Your task to perform on an android device: Open privacy settings Image 0: 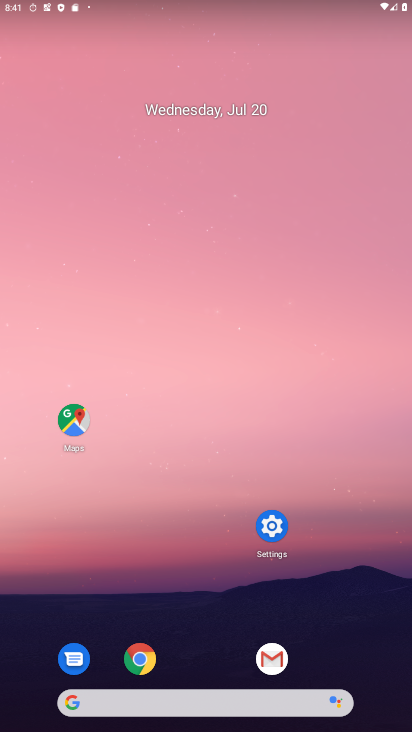
Step 0: click (275, 513)
Your task to perform on an android device: Open privacy settings Image 1: 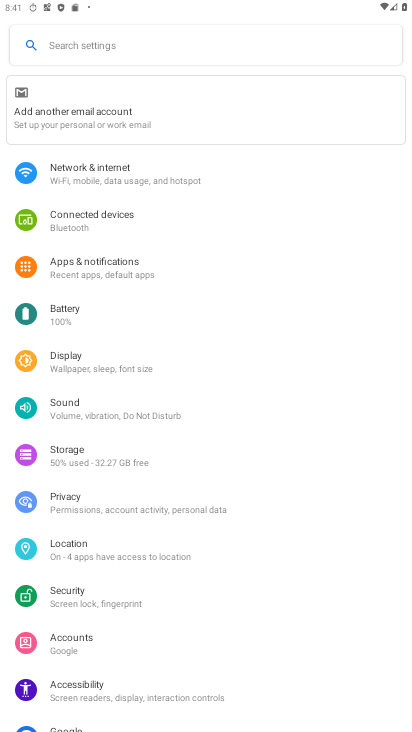
Step 1: click (133, 489)
Your task to perform on an android device: Open privacy settings Image 2: 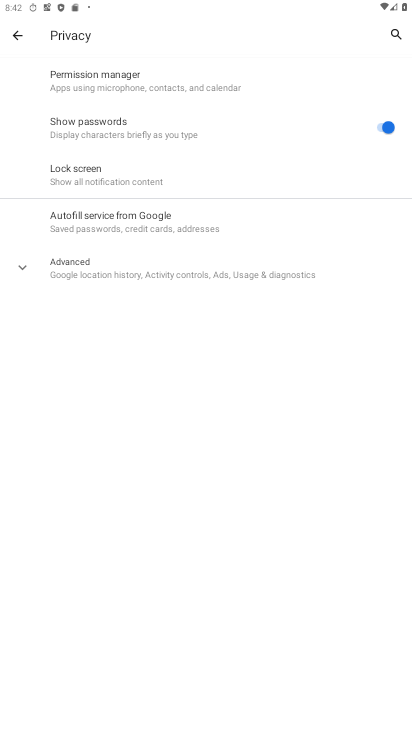
Step 2: task complete